Your task to perform on an android device: Open settings Image 0: 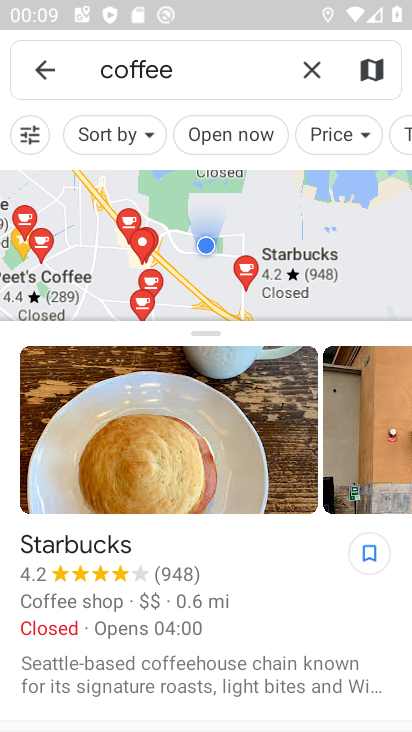
Step 0: press home button
Your task to perform on an android device: Open settings Image 1: 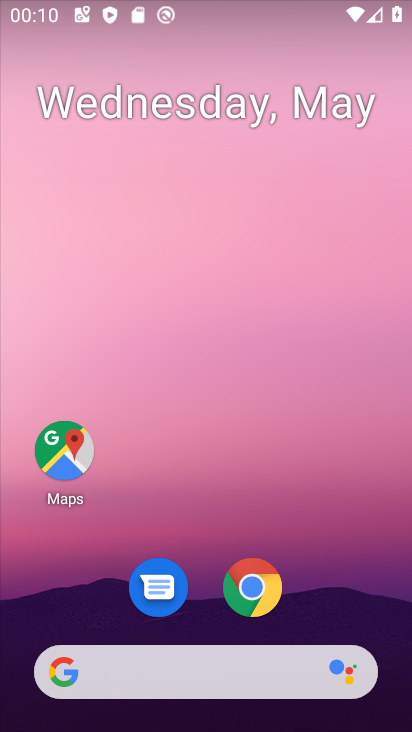
Step 1: drag from (378, 553) to (311, 83)
Your task to perform on an android device: Open settings Image 2: 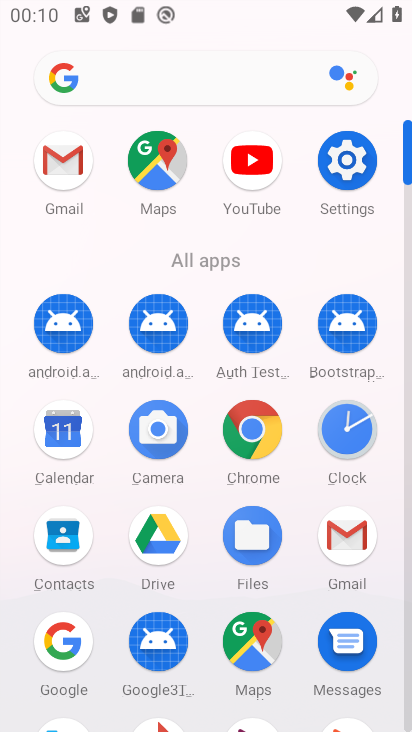
Step 2: click (349, 175)
Your task to perform on an android device: Open settings Image 3: 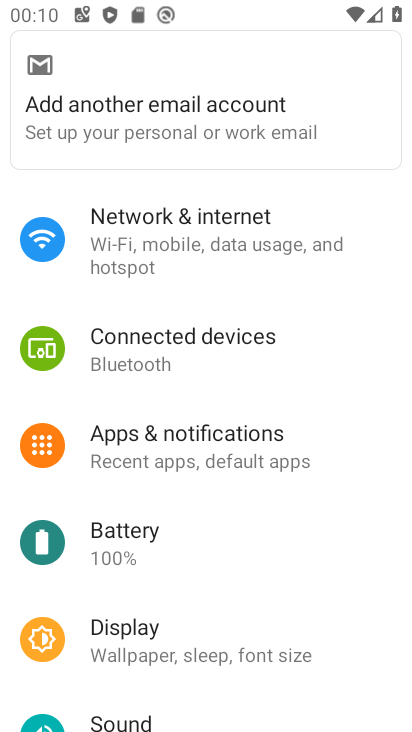
Step 3: task complete